Your task to perform on an android device: Empty the shopping cart on newegg.com. Image 0: 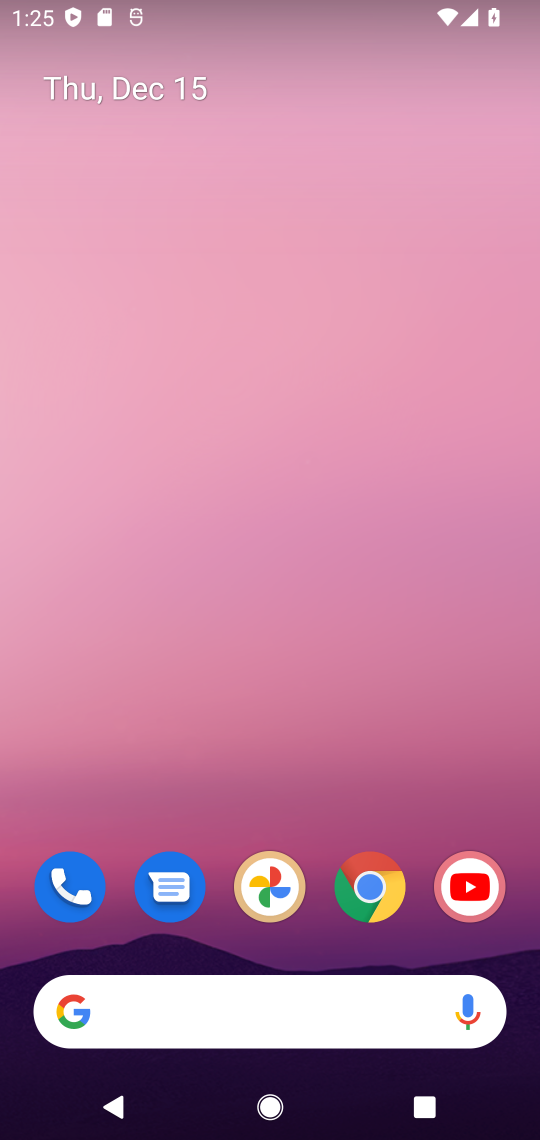
Step 0: click (384, 896)
Your task to perform on an android device: Empty the shopping cart on newegg.com. Image 1: 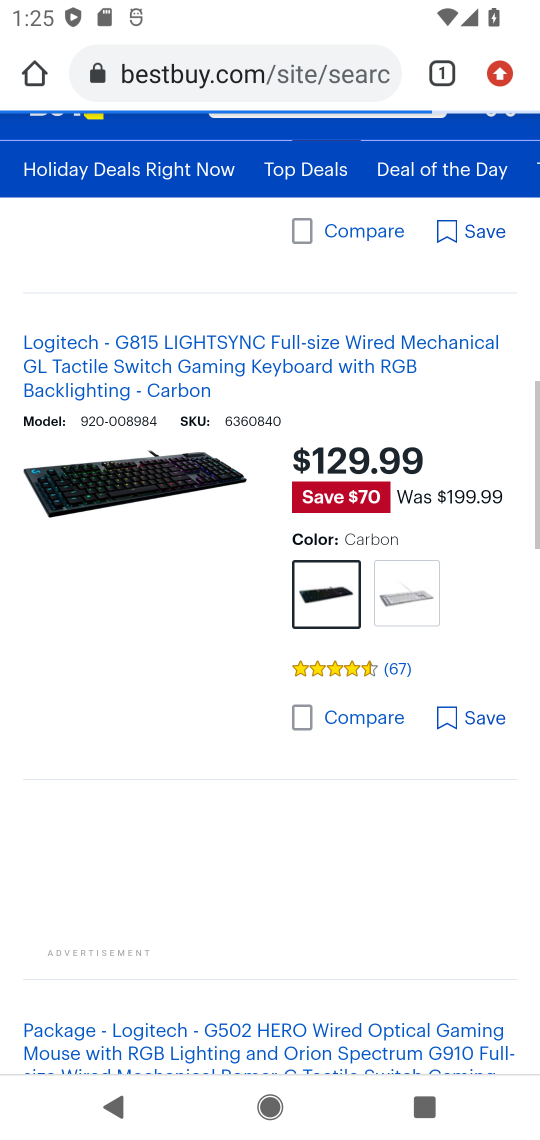
Step 1: click (202, 76)
Your task to perform on an android device: Empty the shopping cart on newegg.com. Image 2: 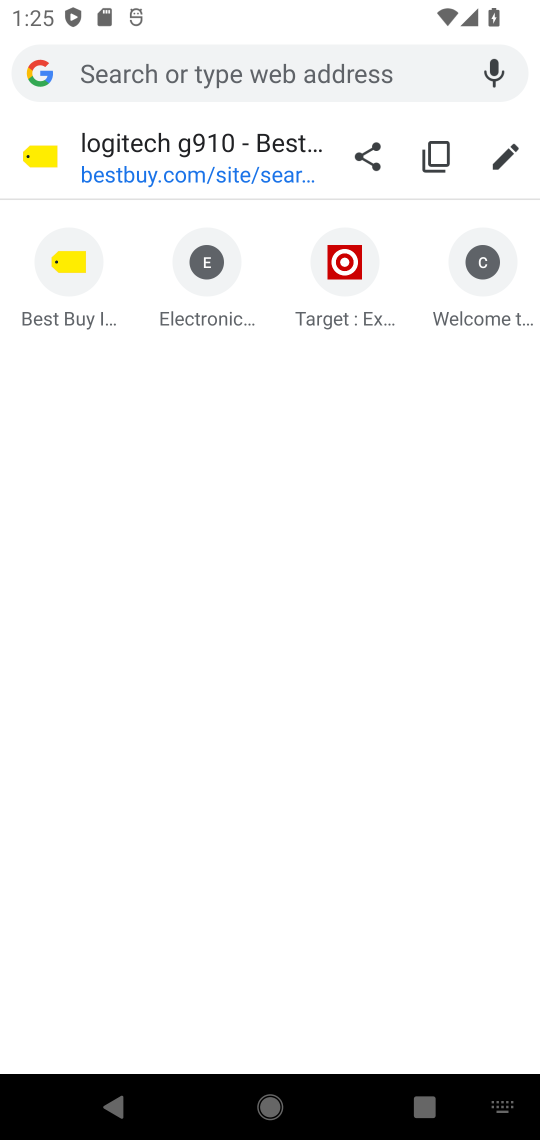
Step 2: type "newegg.com"
Your task to perform on an android device: Empty the shopping cart on newegg.com. Image 3: 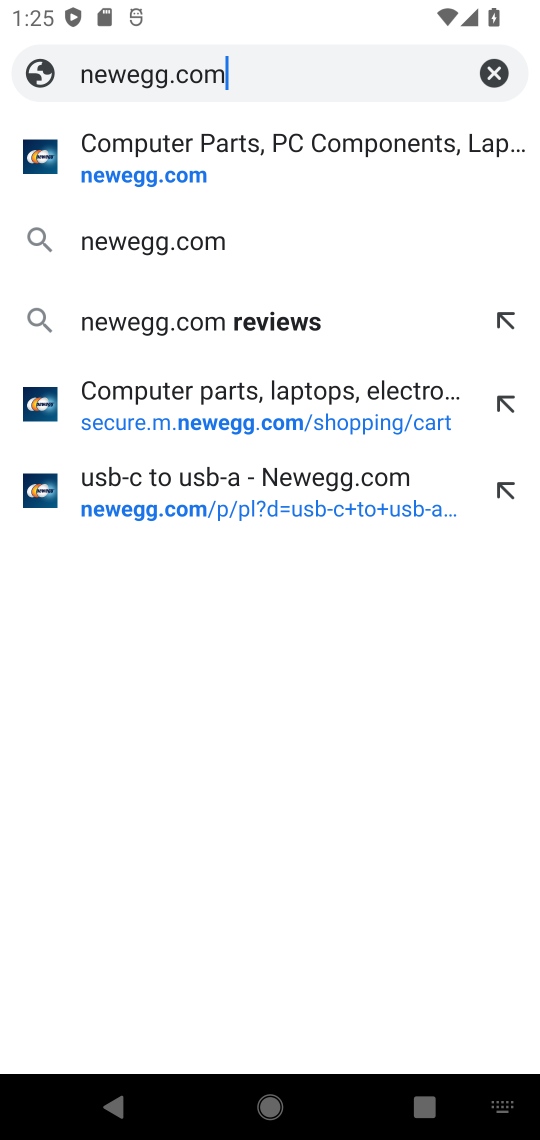
Step 3: click (141, 184)
Your task to perform on an android device: Empty the shopping cart on newegg.com. Image 4: 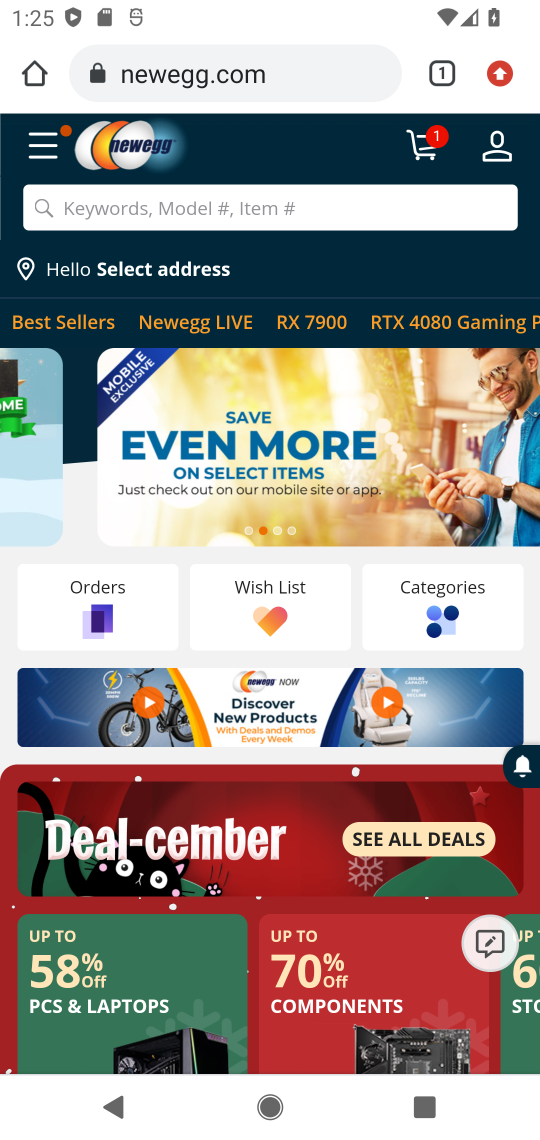
Step 4: click (421, 158)
Your task to perform on an android device: Empty the shopping cart on newegg.com. Image 5: 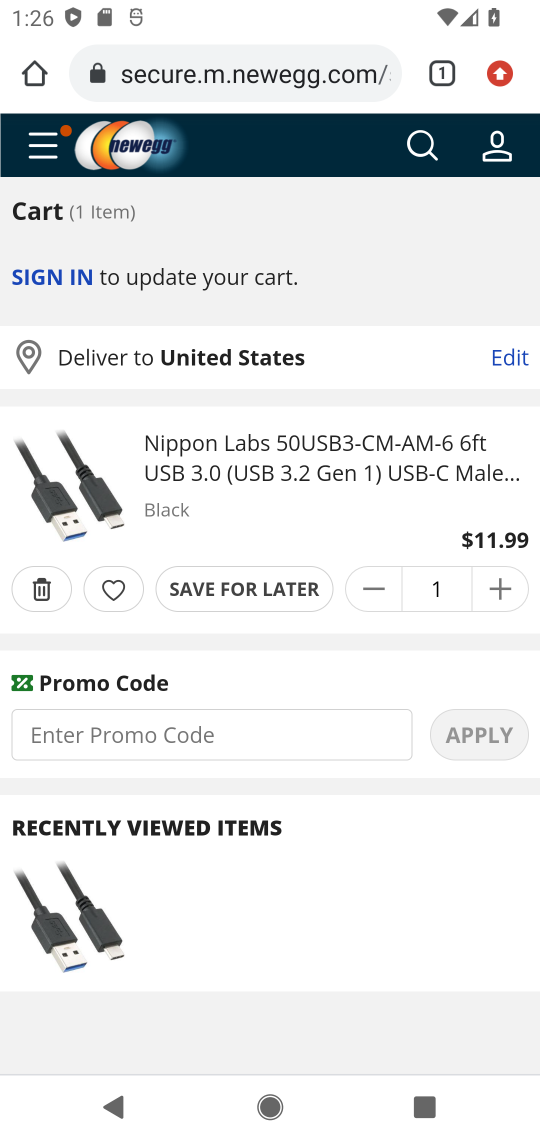
Step 5: click (48, 590)
Your task to perform on an android device: Empty the shopping cart on newegg.com. Image 6: 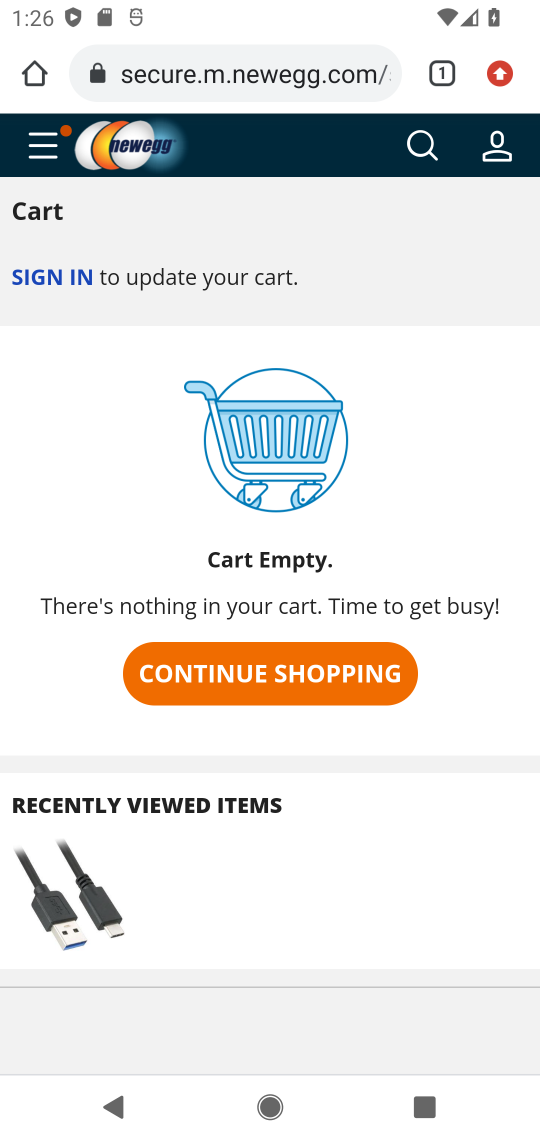
Step 6: task complete